Your task to perform on an android device: open chrome privacy settings Image 0: 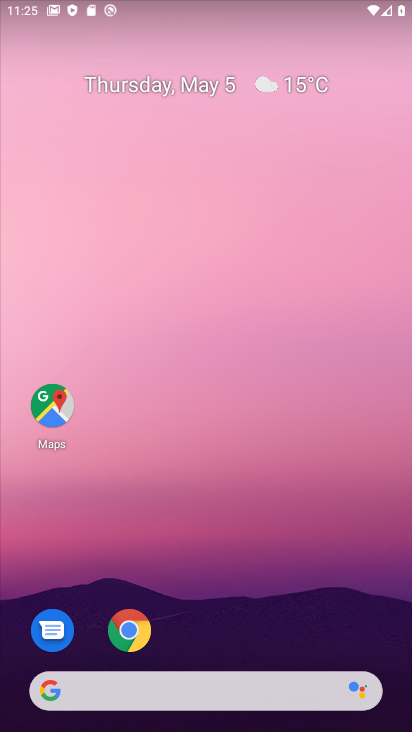
Step 0: click (119, 634)
Your task to perform on an android device: open chrome privacy settings Image 1: 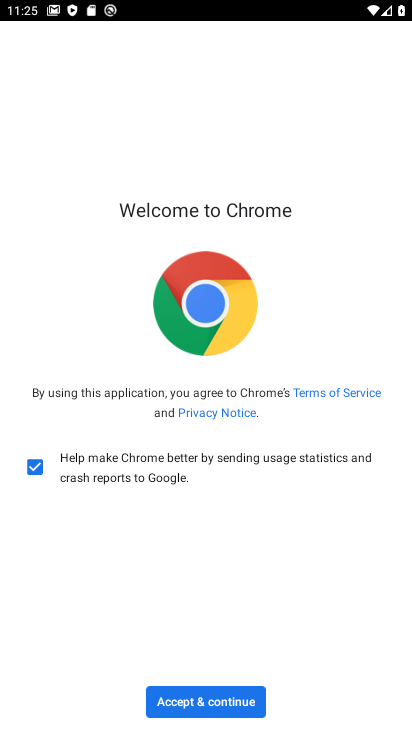
Step 1: click (195, 709)
Your task to perform on an android device: open chrome privacy settings Image 2: 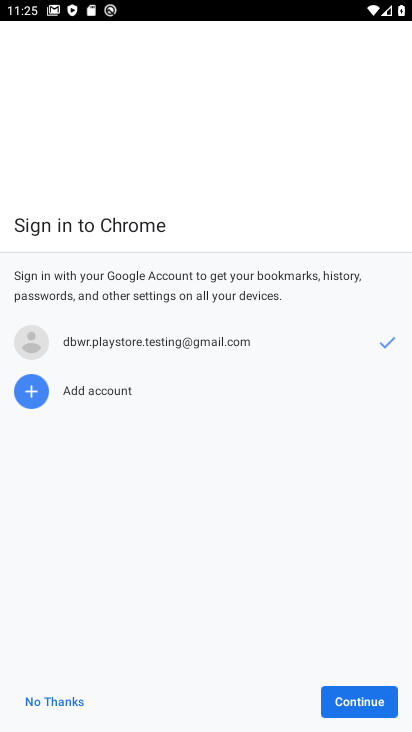
Step 2: click (380, 695)
Your task to perform on an android device: open chrome privacy settings Image 3: 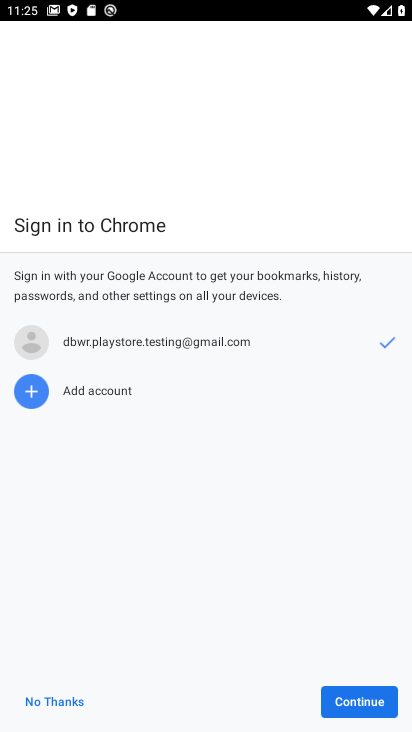
Step 3: click (380, 695)
Your task to perform on an android device: open chrome privacy settings Image 4: 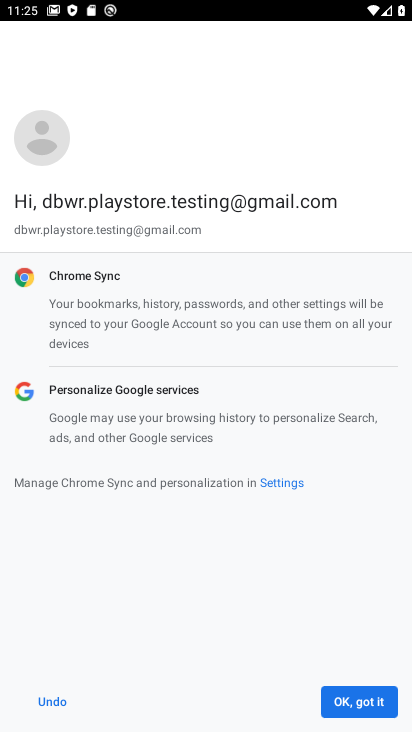
Step 4: click (380, 695)
Your task to perform on an android device: open chrome privacy settings Image 5: 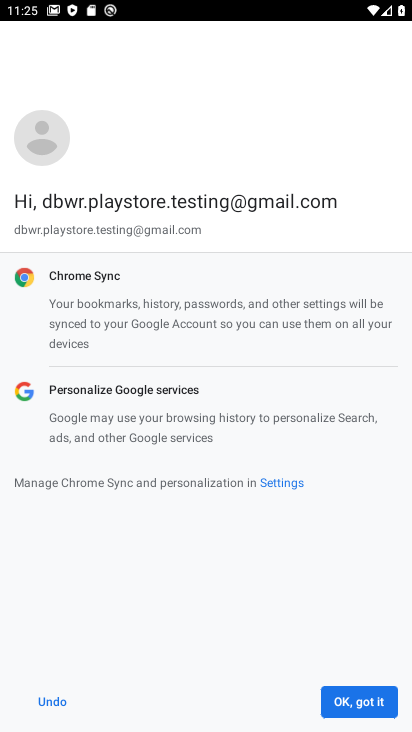
Step 5: click (380, 695)
Your task to perform on an android device: open chrome privacy settings Image 6: 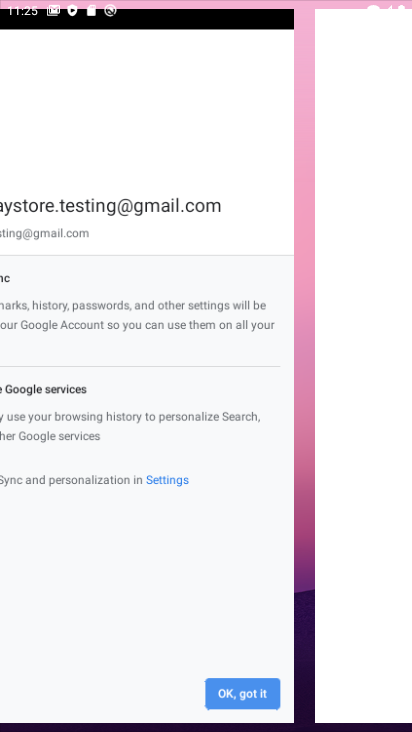
Step 6: click (380, 695)
Your task to perform on an android device: open chrome privacy settings Image 7: 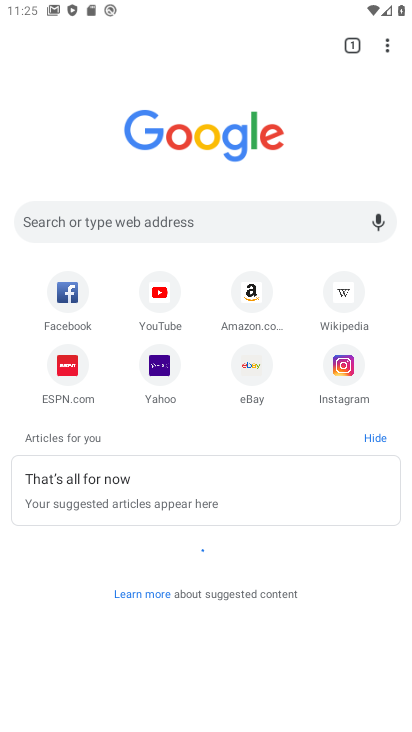
Step 7: drag from (376, 34) to (226, 388)
Your task to perform on an android device: open chrome privacy settings Image 8: 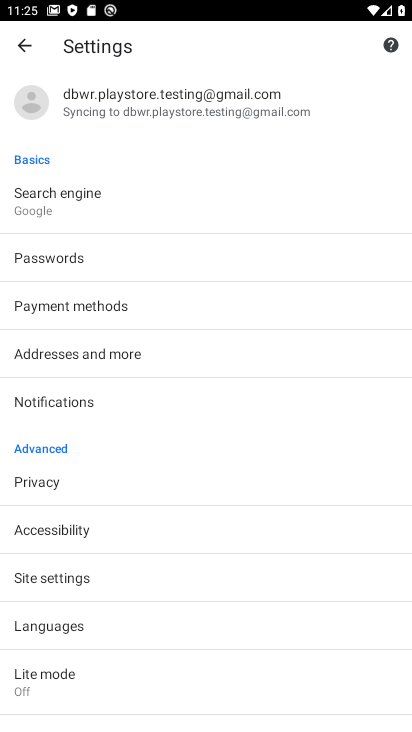
Step 8: click (122, 483)
Your task to perform on an android device: open chrome privacy settings Image 9: 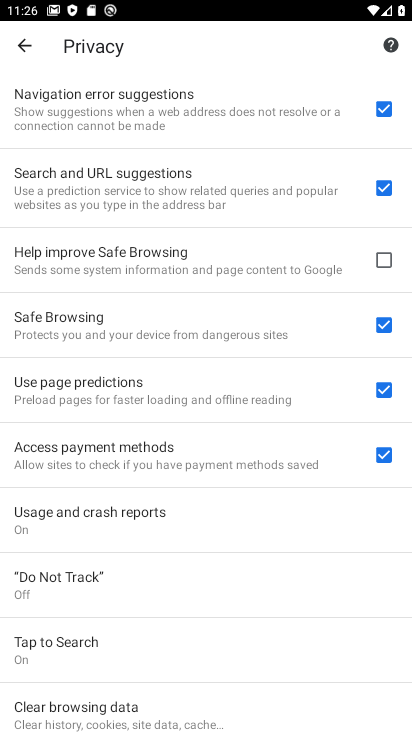
Step 9: task complete